Your task to perform on an android device: Do I have any events tomorrow? Image 0: 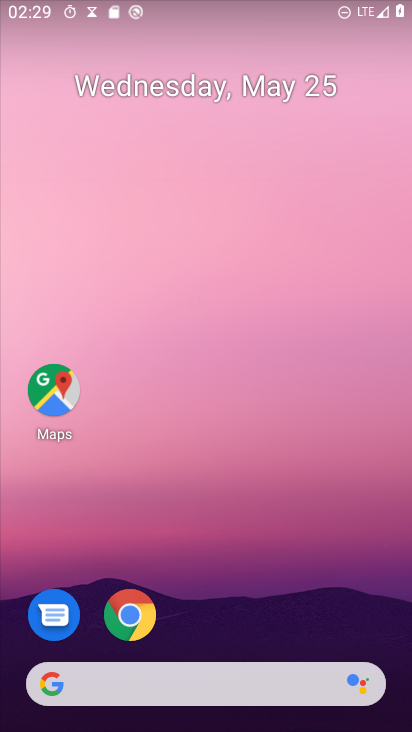
Step 0: drag from (294, 709) to (322, 101)
Your task to perform on an android device: Do I have any events tomorrow? Image 1: 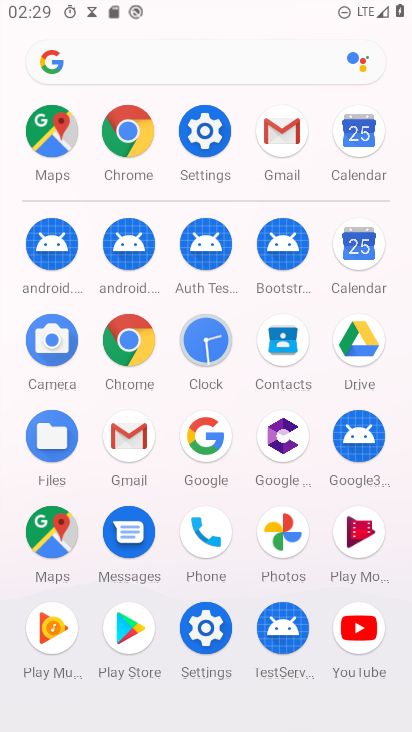
Step 1: click (350, 252)
Your task to perform on an android device: Do I have any events tomorrow? Image 2: 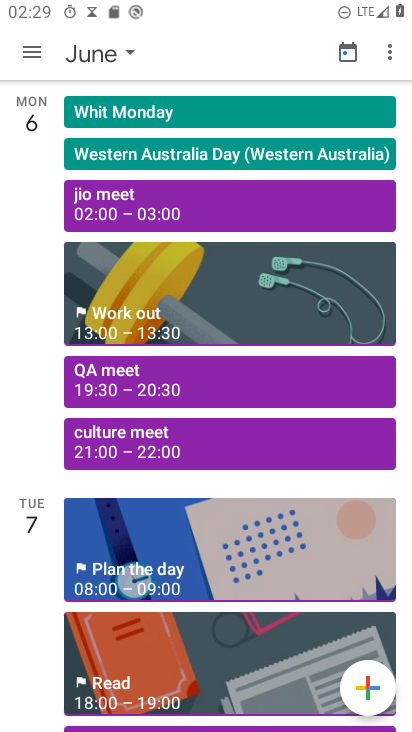
Step 2: click (33, 45)
Your task to perform on an android device: Do I have any events tomorrow? Image 3: 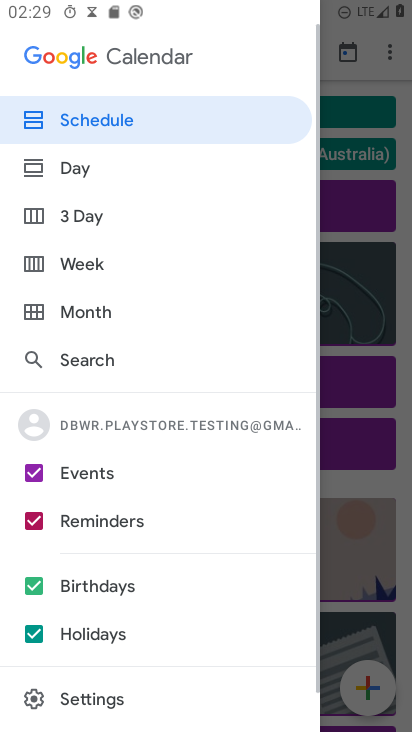
Step 3: click (62, 309)
Your task to perform on an android device: Do I have any events tomorrow? Image 4: 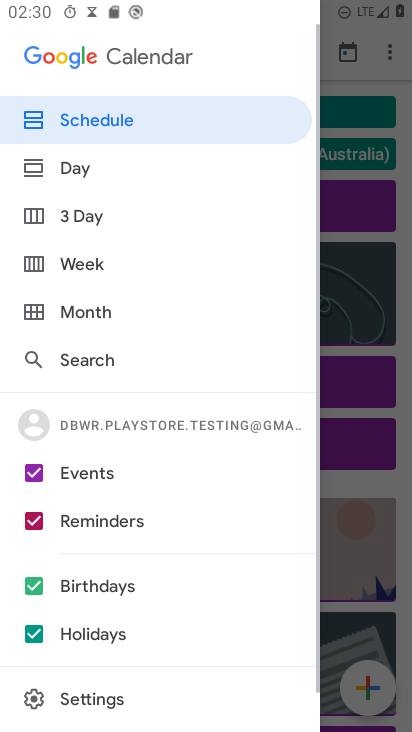
Step 4: click (72, 309)
Your task to perform on an android device: Do I have any events tomorrow? Image 5: 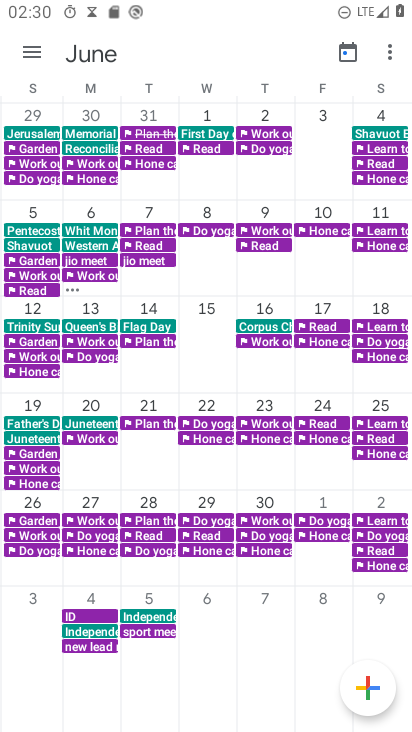
Step 5: drag from (40, 406) to (409, 464)
Your task to perform on an android device: Do I have any events tomorrow? Image 6: 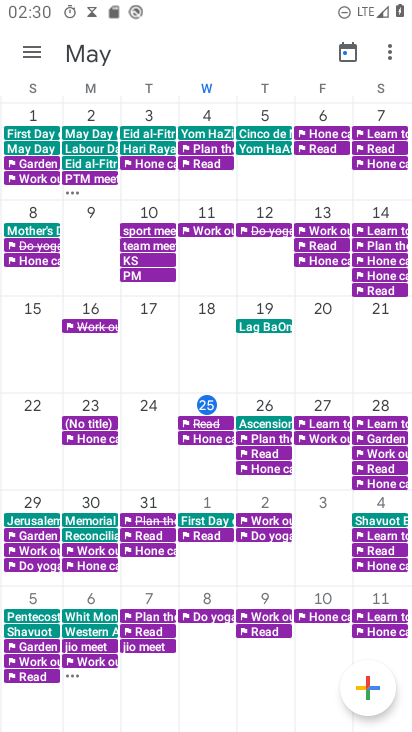
Step 6: click (18, 55)
Your task to perform on an android device: Do I have any events tomorrow? Image 7: 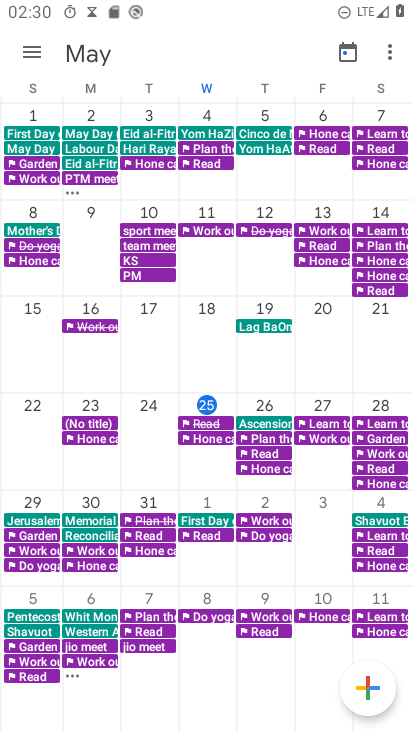
Step 7: click (36, 53)
Your task to perform on an android device: Do I have any events tomorrow? Image 8: 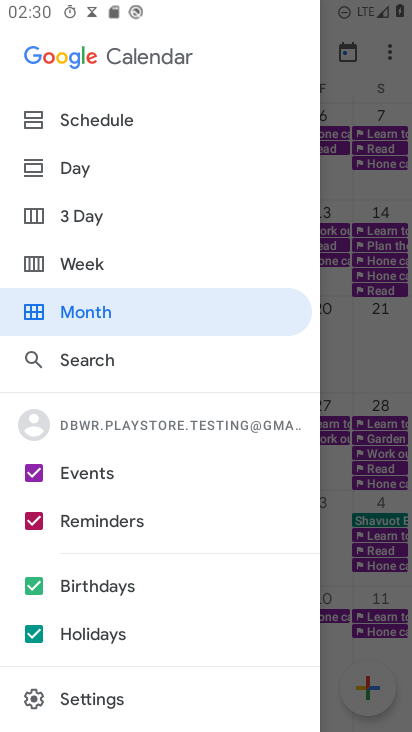
Step 8: click (86, 123)
Your task to perform on an android device: Do I have any events tomorrow? Image 9: 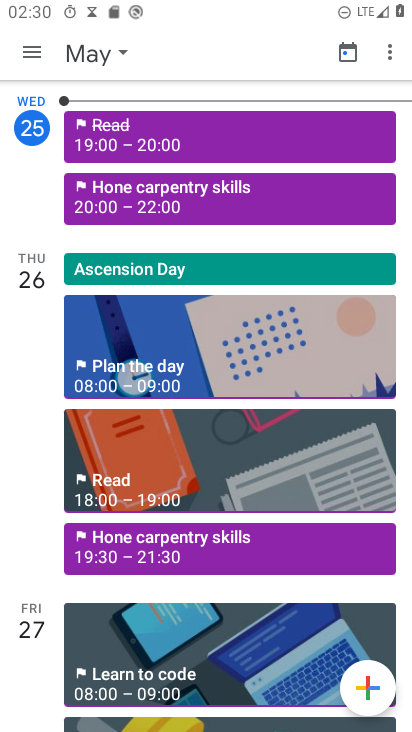
Step 9: task complete